Your task to perform on an android device: open chrome and create a bookmark for the current page Image 0: 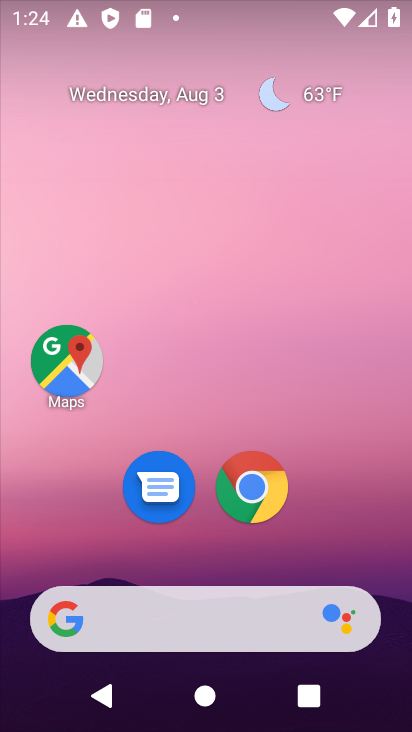
Step 0: drag from (336, 534) to (336, 135)
Your task to perform on an android device: open chrome and create a bookmark for the current page Image 1: 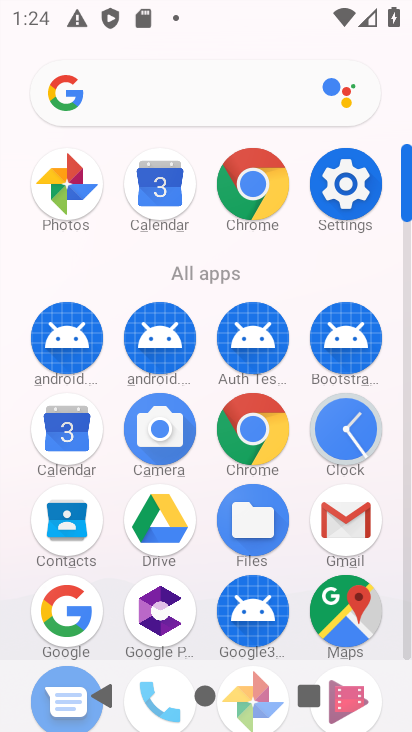
Step 1: click (256, 421)
Your task to perform on an android device: open chrome and create a bookmark for the current page Image 2: 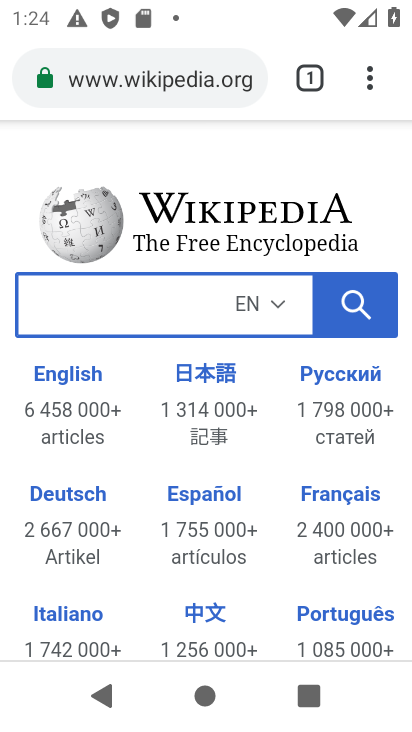
Step 2: task complete